Your task to perform on an android device: change text size in settings app Image 0: 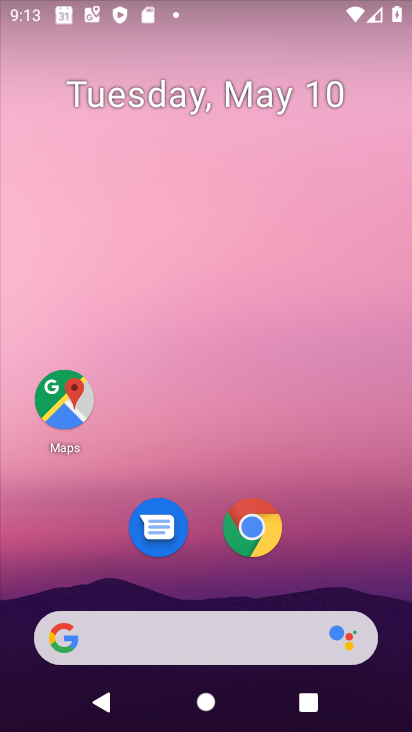
Step 0: drag from (193, 502) to (193, 324)
Your task to perform on an android device: change text size in settings app Image 1: 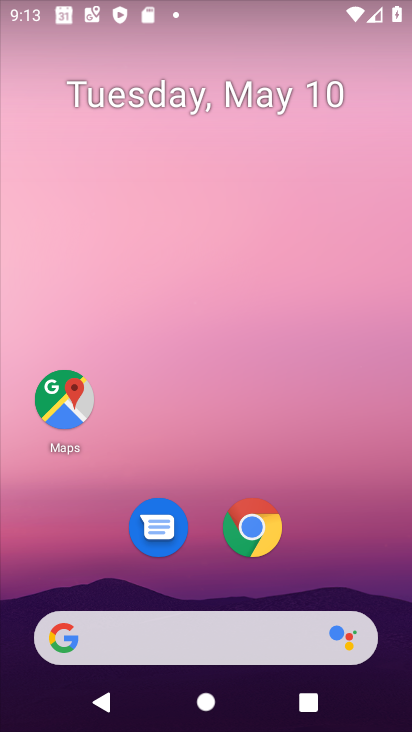
Step 1: drag from (291, 587) to (305, 442)
Your task to perform on an android device: change text size in settings app Image 2: 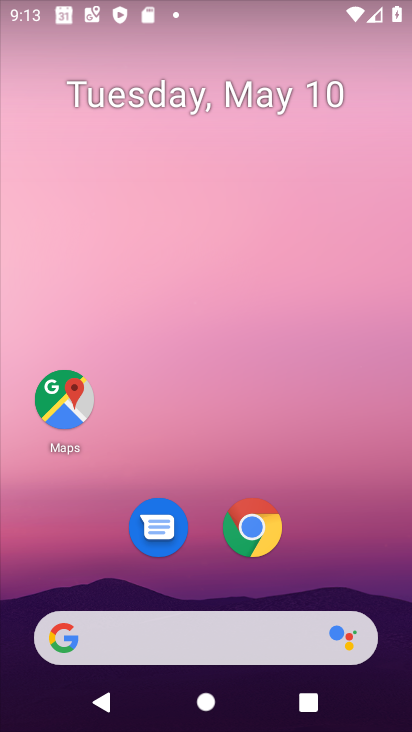
Step 2: drag from (204, 508) to (318, 85)
Your task to perform on an android device: change text size in settings app Image 3: 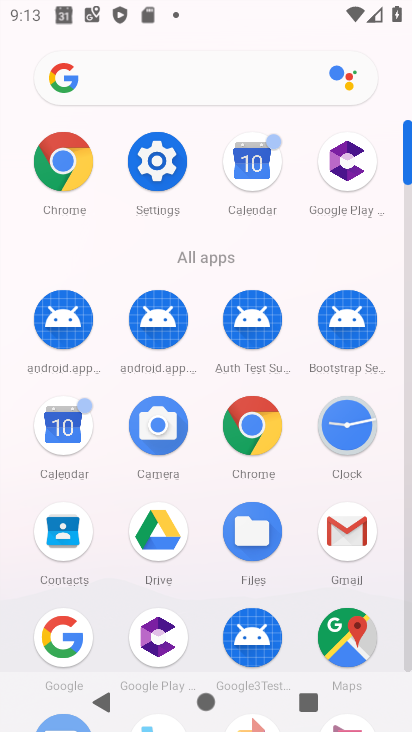
Step 3: click (145, 177)
Your task to perform on an android device: change text size in settings app Image 4: 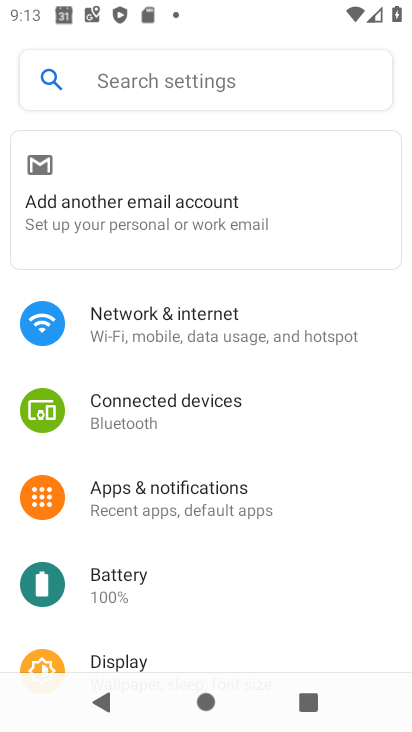
Step 4: drag from (153, 581) to (206, 283)
Your task to perform on an android device: change text size in settings app Image 5: 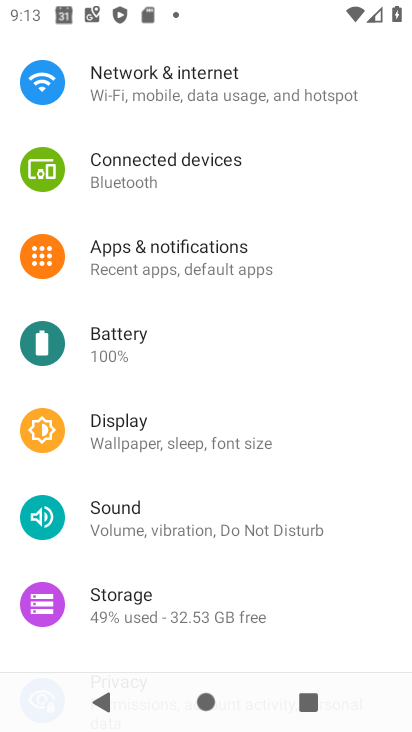
Step 5: drag from (176, 542) to (215, 428)
Your task to perform on an android device: change text size in settings app Image 6: 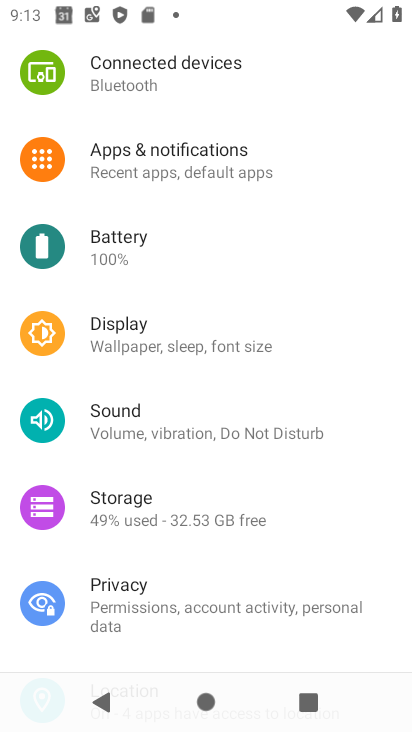
Step 6: click (180, 339)
Your task to perform on an android device: change text size in settings app Image 7: 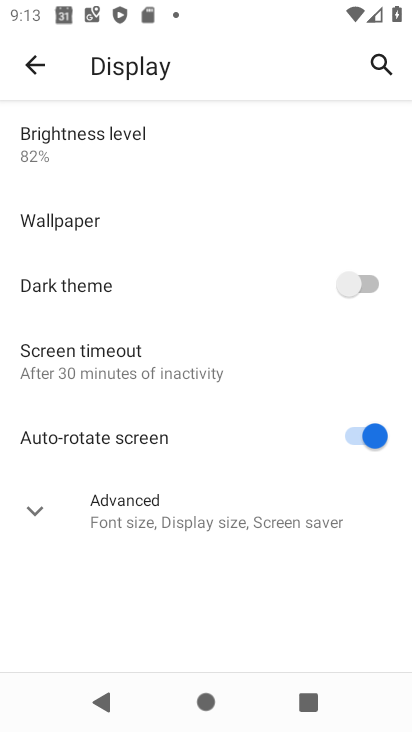
Step 7: click (132, 538)
Your task to perform on an android device: change text size in settings app Image 8: 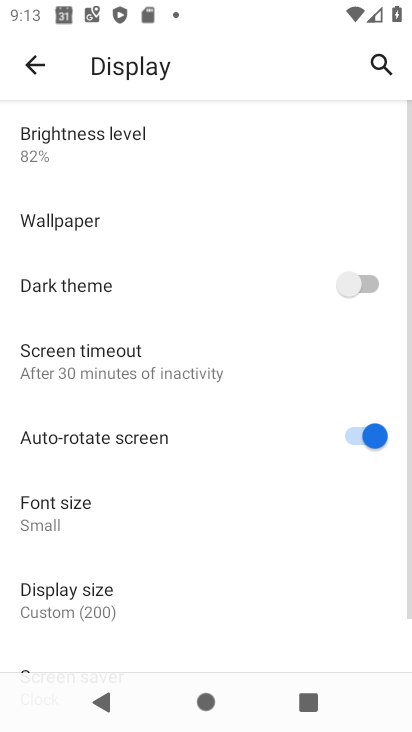
Step 8: drag from (125, 597) to (182, 391)
Your task to perform on an android device: change text size in settings app Image 9: 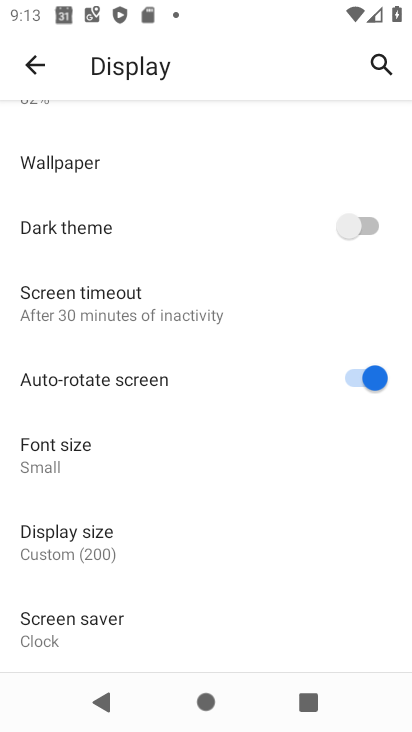
Step 9: click (86, 445)
Your task to perform on an android device: change text size in settings app Image 10: 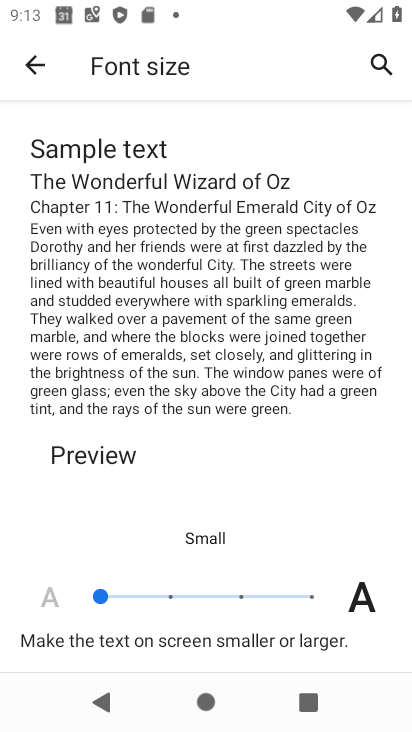
Step 10: click (173, 601)
Your task to perform on an android device: change text size in settings app Image 11: 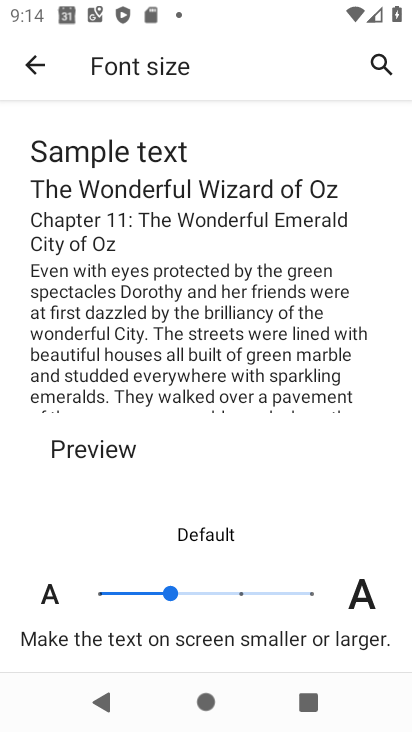
Step 11: task complete